Your task to perform on an android device: install app "Google Maps" Image 0: 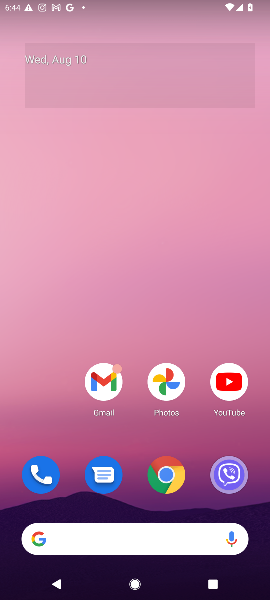
Step 0: drag from (167, 534) to (170, 162)
Your task to perform on an android device: install app "Google Maps" Image 1: 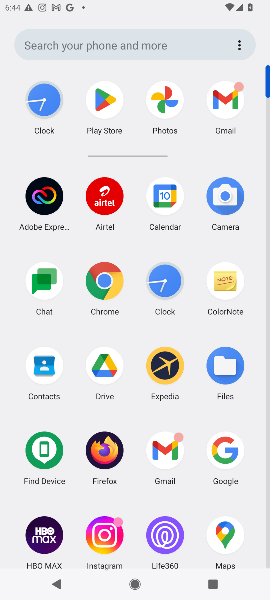
Step 1: click (221, 534)
Your task to perform on an android device: install app "Google Maps" Image 2: 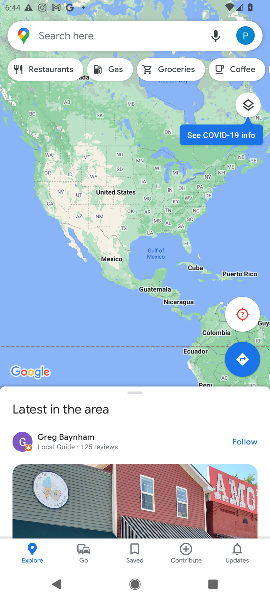
Step 2: task complete